Your task to perform on an android device: delete browsing data in the chrome app Image 0: 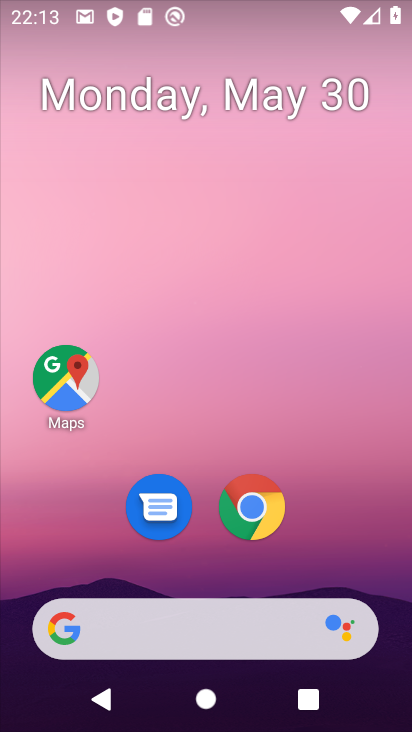
Step 0: drag from (380, 554) to (363, 153)
Your task to perform on an android device: delete browsing data in the chrome app Image 1: 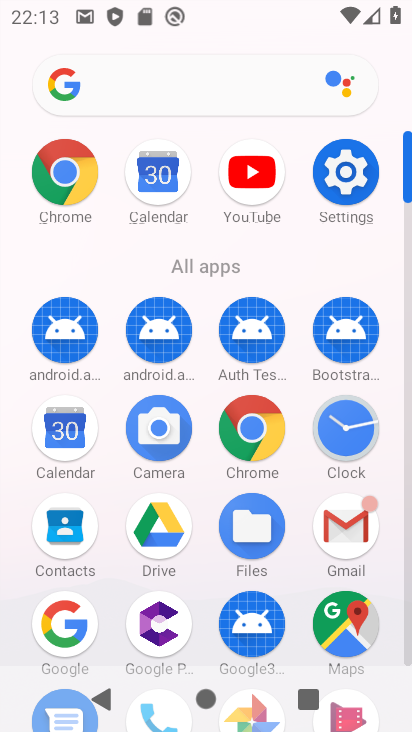
Step 1: click (255, 444)
Your task to perform on an android device: delete browsing data in the chrome app Image 2: 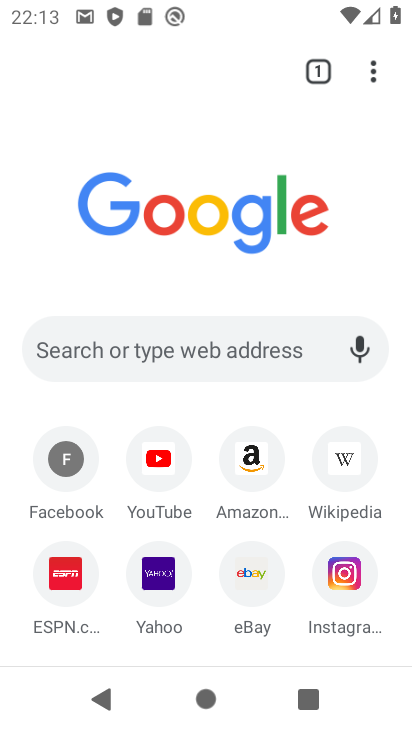
Step 2: click (373, 85)
Your task to perform on an android device: delete browsing data in the chrome app Image 3: 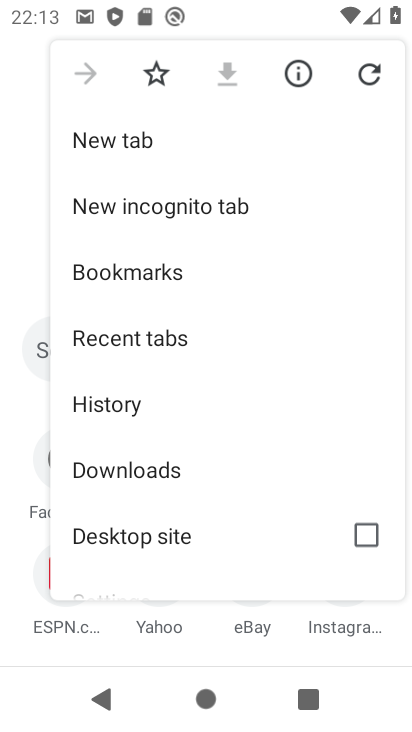
Step 3: drag from (301, 396) to (316, 303)
Your task to perform on an android device: delete browsing data in the chrome app Image 4: 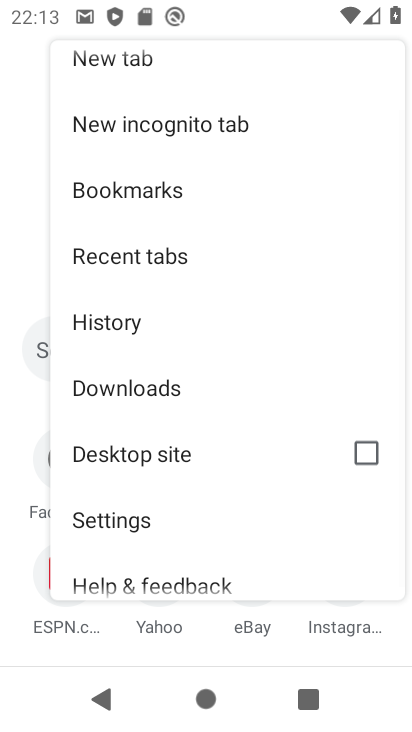
Step 4: drag from (292, 472) to (303, 318)
Your task to perform on an android device: delete browsing data in the chrome app Image 5: 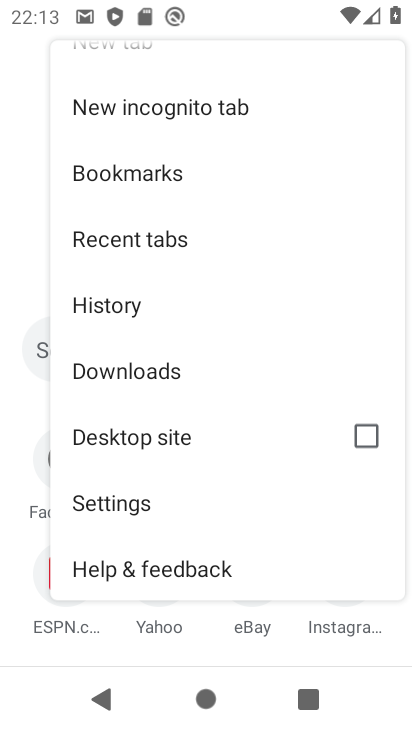
Step 5: click (135, 504)
Your task to perform on an android device: delete browsing data in the chrome app Image 6: 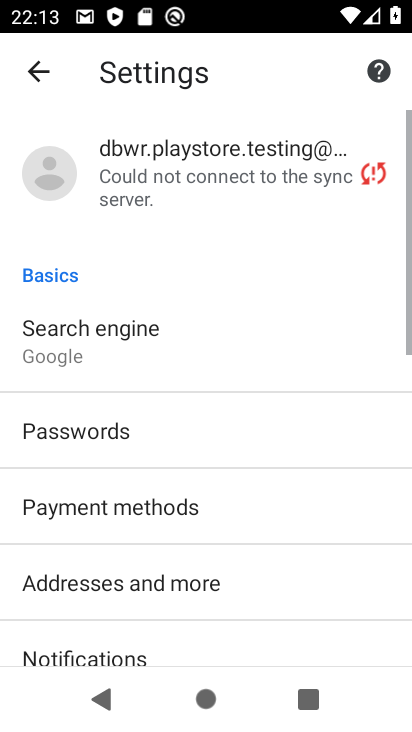
Step 6: drag from (352, 519) to (341, 334)
Your task to perform on an android device: delete browsing data in the chrome app Image 7: 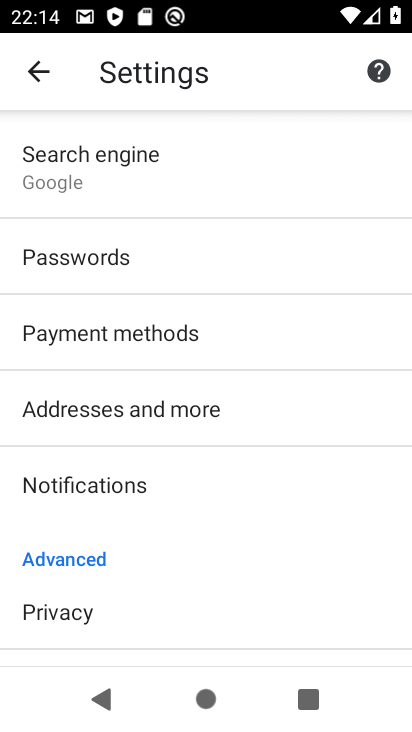
Step 7: drag from (329, 534) to (340, 357)
Your task to perform on an android device: delete browsing data in the chrome app Image 8: 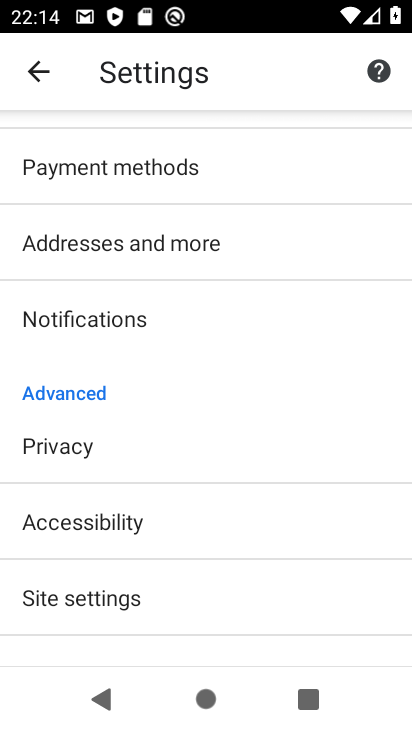
Step 8: drag from (347, 541) to (344, 395)
Your task to perform on an android device: delete browsing data in the chrome app Image 9: 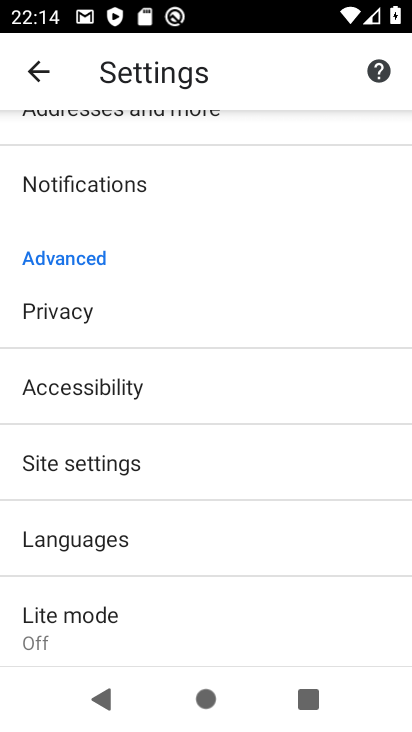
Step 9: drag from (341, 588) to (340, 443)
Your task to perform on an android device: delete browsing data in the chrome app Image 10: 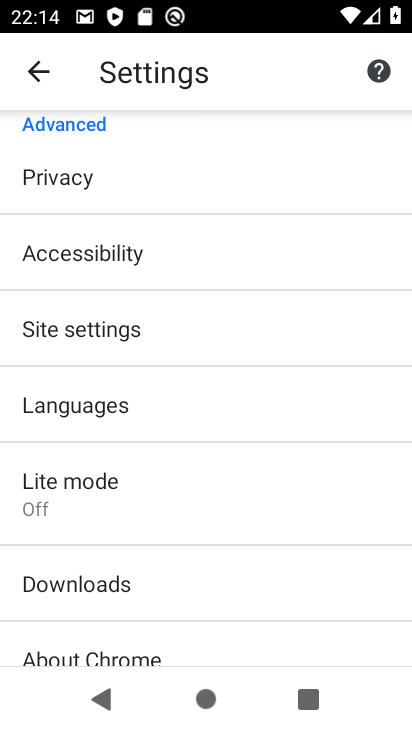
Step 10: drag from (337, 609) to (334, 441)
Your task to perform on an android device: delete browsing data in the chrome app Image 11: 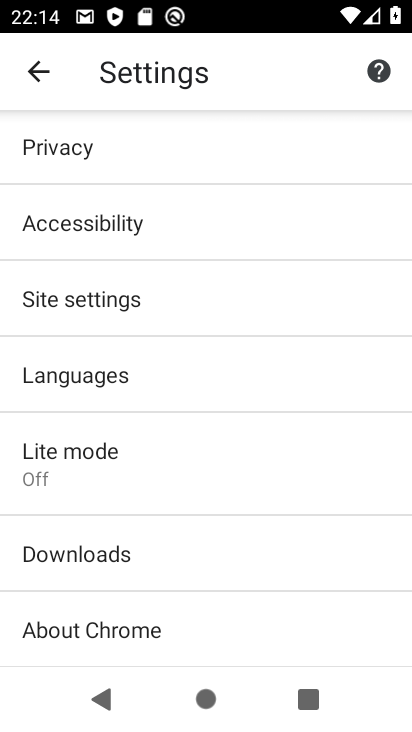
Step 11: drag from (340, 339) to (330, 479)
Your task to perform on an android device: delete browsing data in the chrome app Image 12: 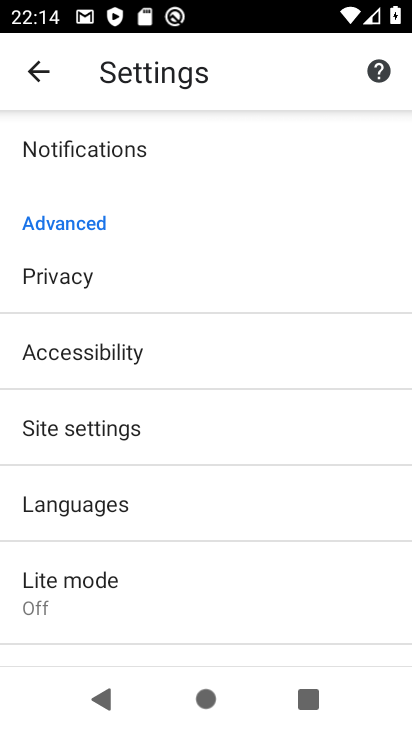
Step 12: drag from (313, 351) to (319, 482)
Your task to perform on an android device: delete browsing data in the chrome app Image 13: 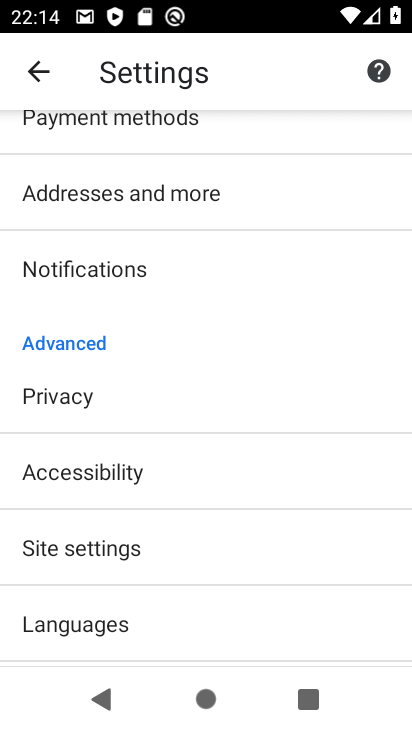
Step 13: click (159, 409)
Your task to perform on an android device: delete browsing data in the chrome app Image 14: 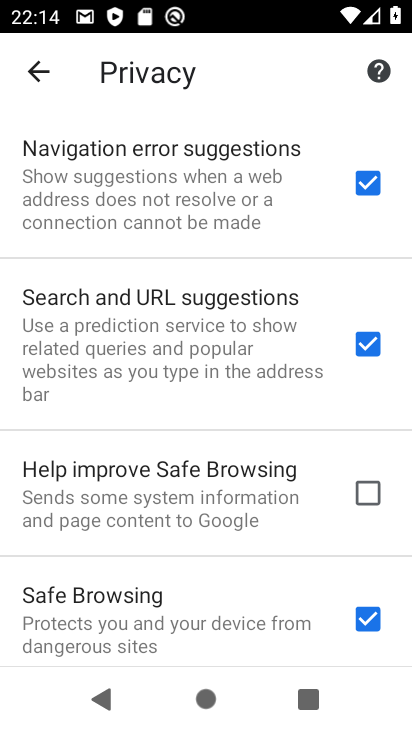
Step 14: drag from (271, 559) to (289, 426)
Your task to perform on an android device: delete browsing data in the chrome app Image 15: 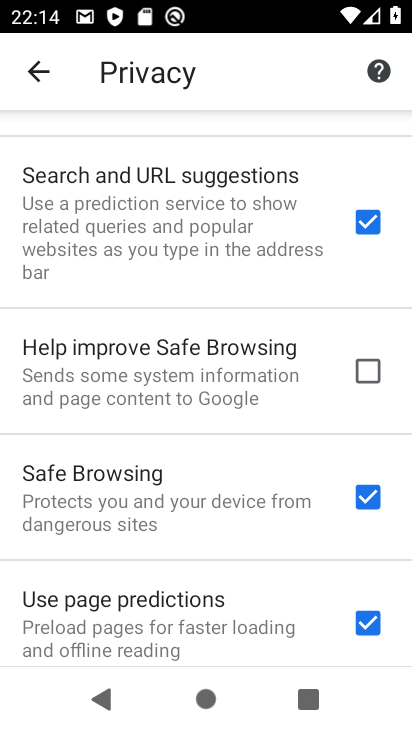
Step 15: drag from (306, 577) to (305, 450)
Your task to perform on an android device: delete browsing data in the chrome app Image 16: 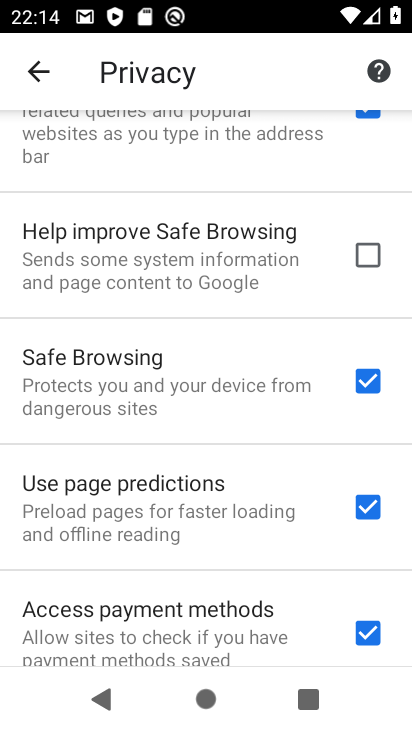
Step 16: drag from (296, 594) to (287, 464)
Your task to perform on an android device: delete browsing data in the chrome app Image 17: 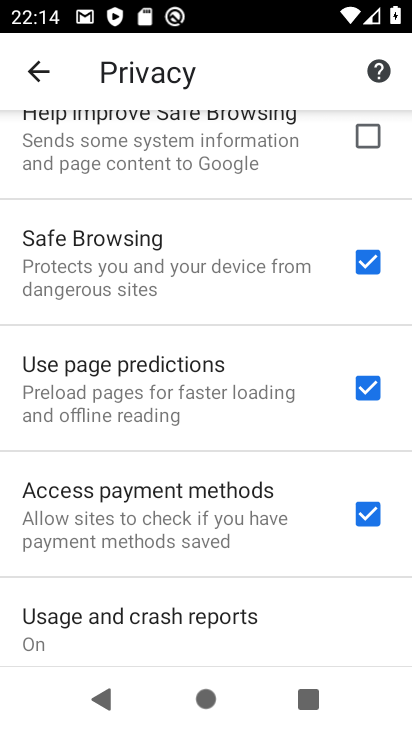
Step 17: drag from (283, 553) to (295, 385)
Your task to perform on an android device: delete browsing data in the chrome app Image 18: 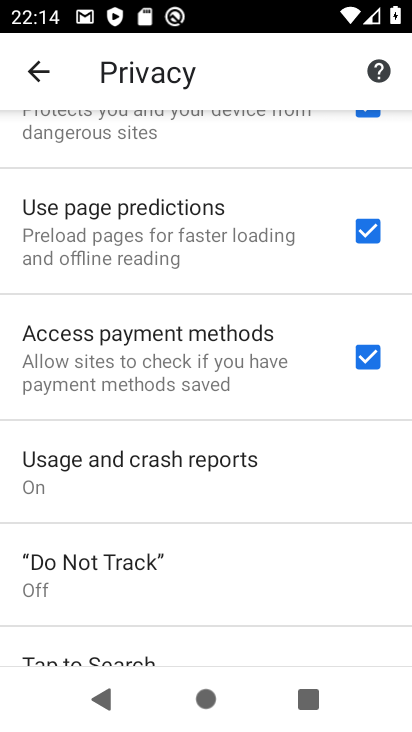
Step 18: drag from (285, 581) to (272, 353)
Your task to perform on an android device: delete browsing data in the chrome app Image 19: 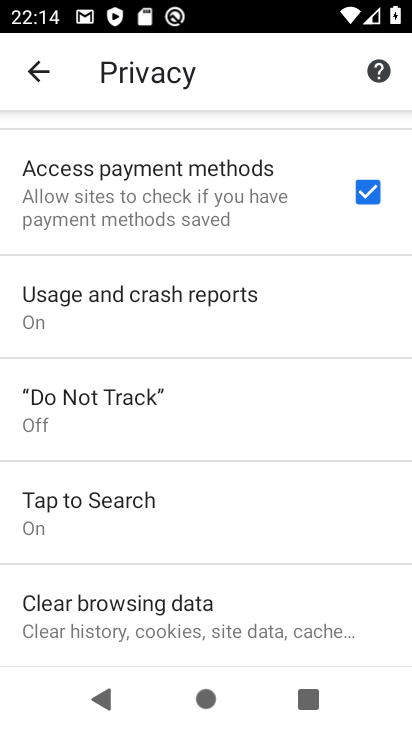
Step 19: drag from (292, 515) to (304, 329)
Your task to perform on an android device: delete browsing data in the chrome app Image 20: 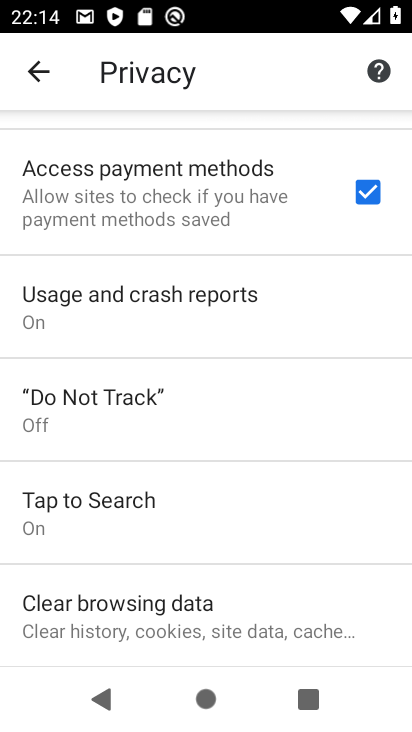
Step 20: drag from (303, 499) to (312, 347)
Your task to perform on an android device: delete browsing data in the chrome app Image 21: 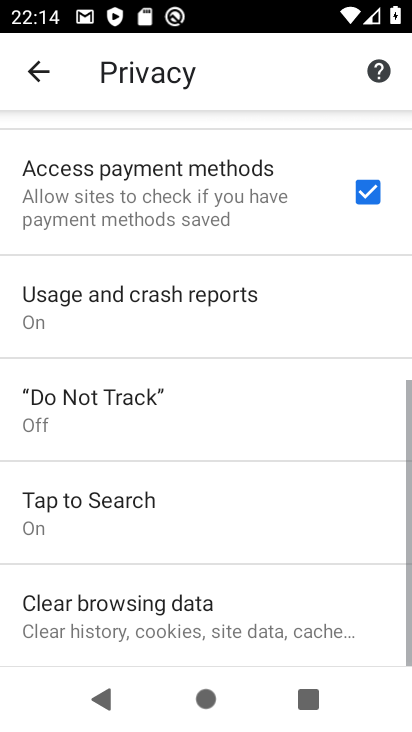
Step 21: click (239, 602)
Your task to perform on an android device: delete browsing data in the chrome app Image 22: 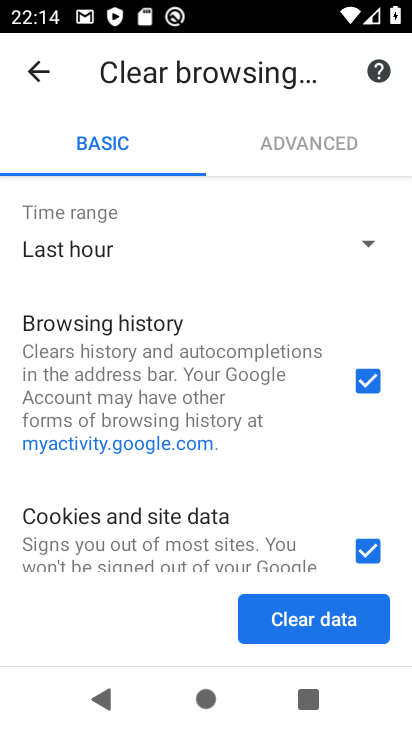
Step 22: click (336, 609)
Your task to perform on an android device: delete browsing data in the chrome app Image 23: 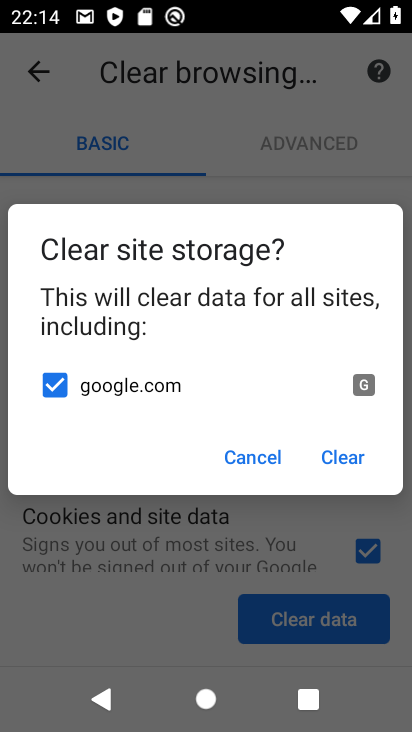
Step 23: click (345, 453)
Your task to perform on an android device: delete browsing data in the chrome app Image 24: 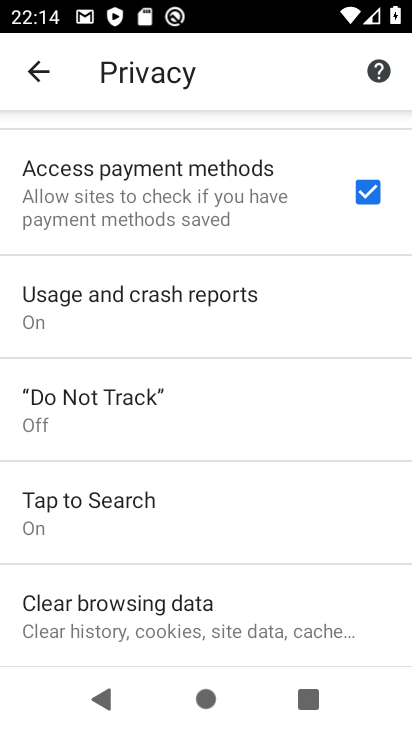
Step 24: task complete